Your task to perform on an android device: turn off javascript in the chrome app Image 0: 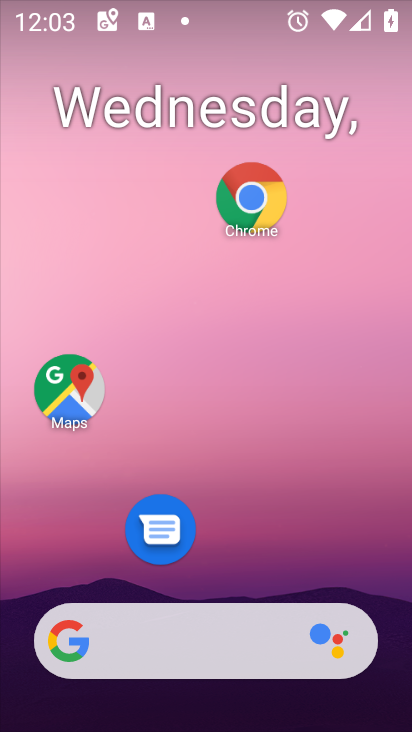
Step 0: drag from (201, 623) to (169, 88)
Your task to perform on an android device: turn off javascript in the chrome app Image 1: 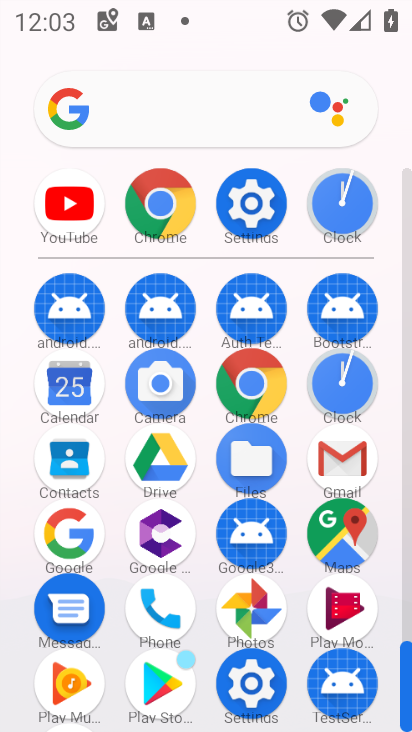
Step 1: click (256, 381)
Your task to perform on an android device: turn off javascript in the chrome app Image 2: 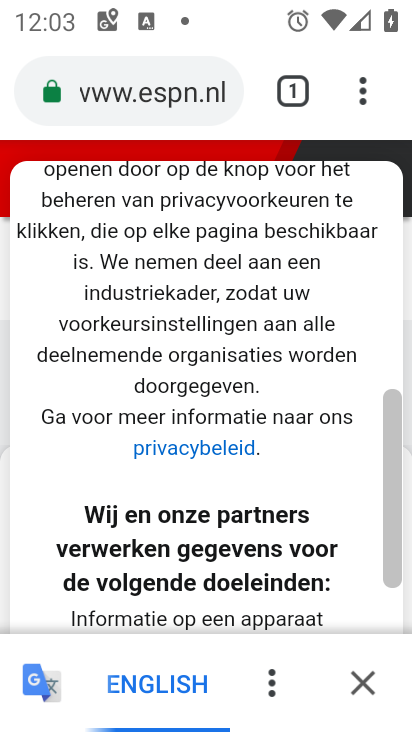
Step 2: click (370, 101)
Your task to perform on an android device: turn off javascript in the chrome app Image 3: 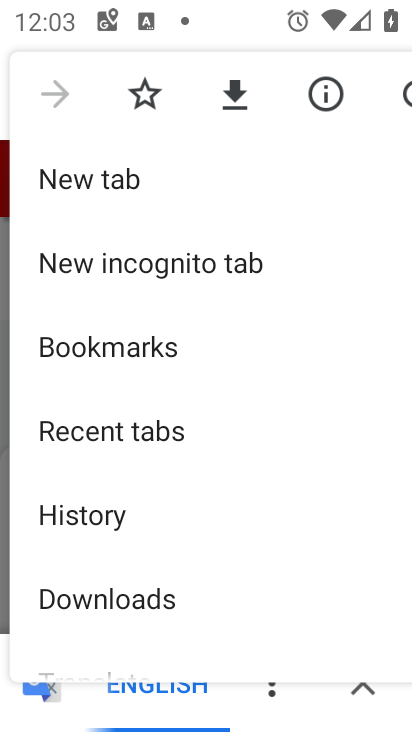
Step 3: drag from (210, 425) to (244, 167)
Your task to perform on an android device: turn off javascript in the chrome app Image 4: 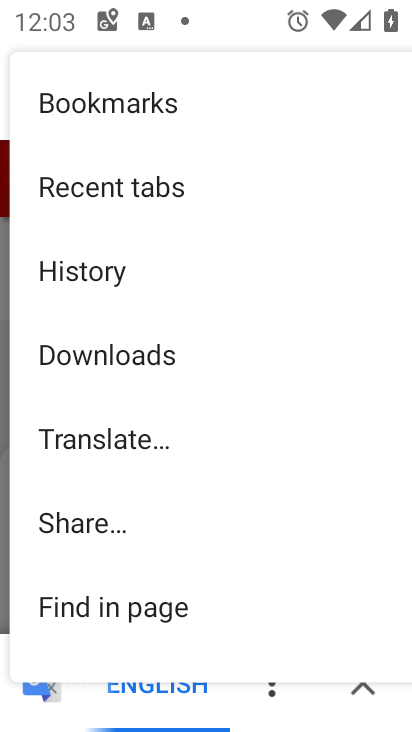
Step 4: drag from (143, 525) to (135, 228)
Your task to perform on an android device: turn off javascript in the chrome app Image 5: 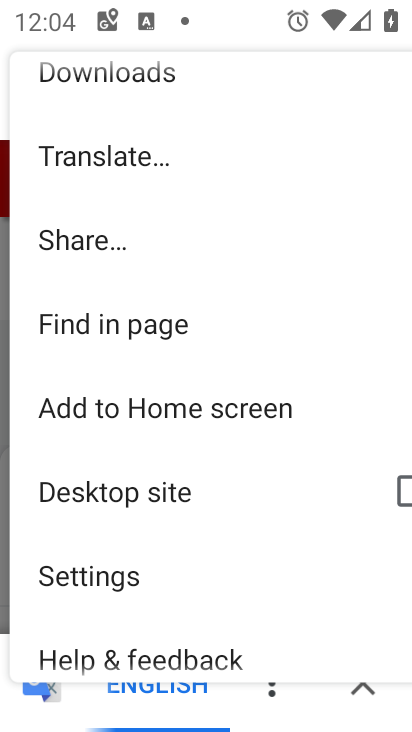
Step 5: click (146, 573)
Your task to perform on an android device: turn off javascript in the chrome app Image 6: 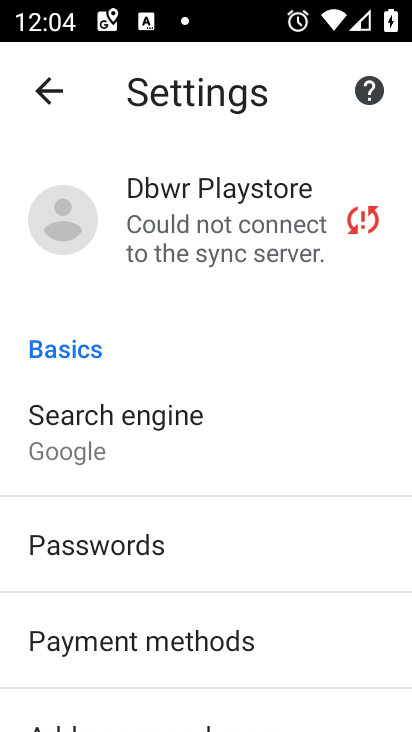
Step 6: drag from (248, 540) to (215, 254)
Your task to perform on an android device: turn off javascript in the chrome app Image 7: 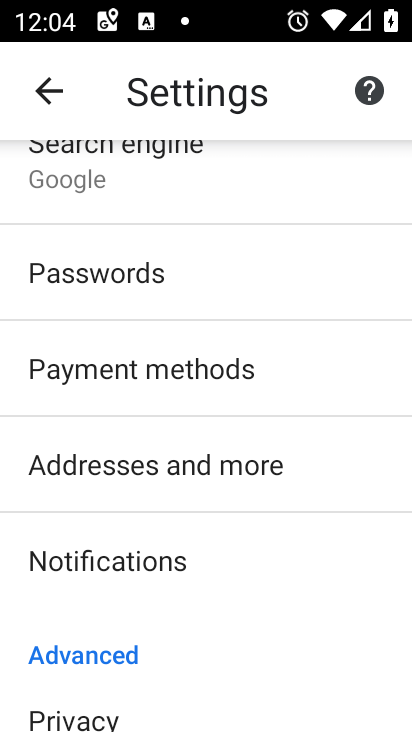
Step 7: drag from (226, 564) to (240, 361)
Your task to perform on an android device: turn off javascript in the chrome app Image 8: 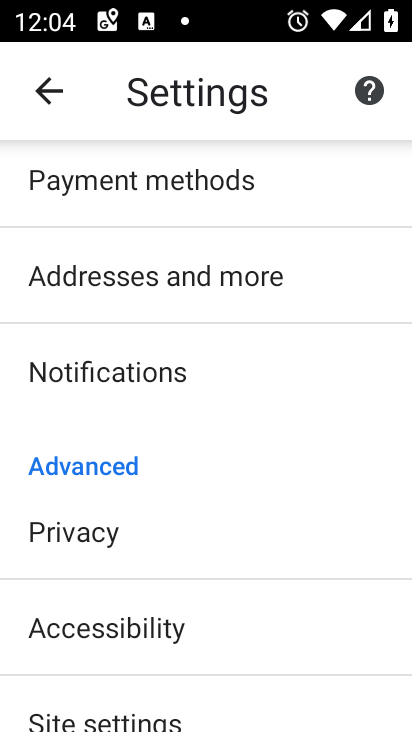
Step 8: drag from (172, 594) to (177, 303)
Your task to perform on an android device: turn off javascript in the chrome app Image 9: 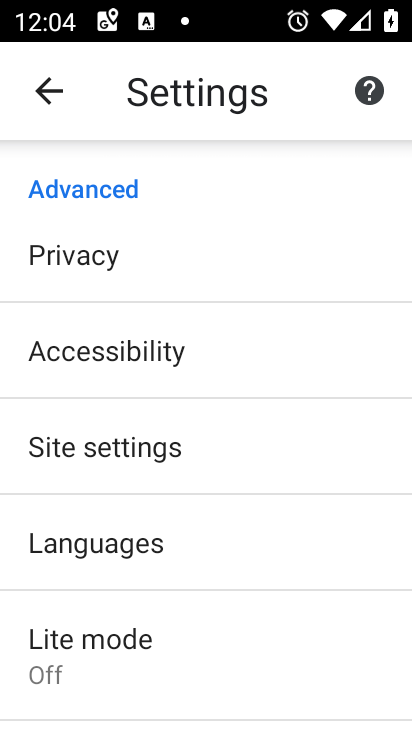
Step 9: click (133, 464)
Your task to perform on an android device: turn off javascript in the chrome app Image 10: 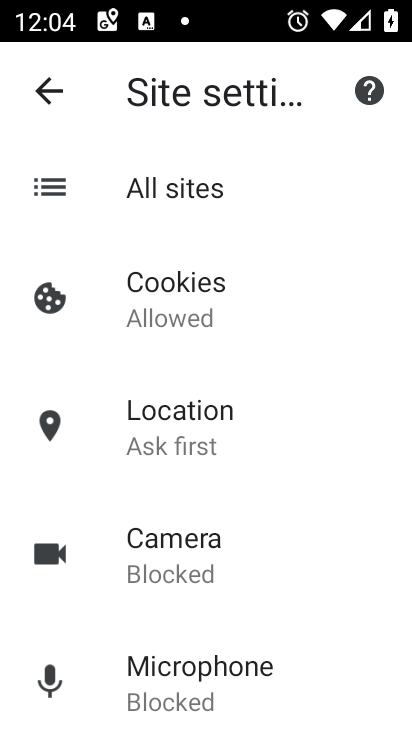
Step 10: drag from (177, 556) to (191, 313)
Your task to perform on an android device: turn off javascript in the chrome app Image 11: 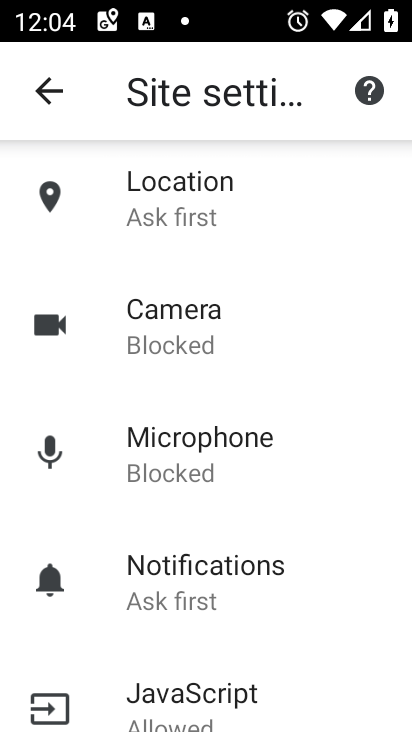
Step 11: drag from (195, 592) to (185, 375)
Your task to perform on an android device: turn off javascript in the chrome app Image 12: 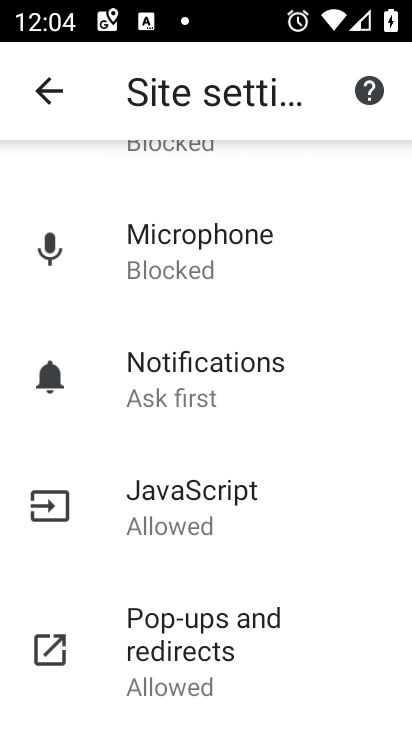
Step 12: click (197, 509)
Your task to perform on an android device: turn off javascript in the chrome app Image 13: 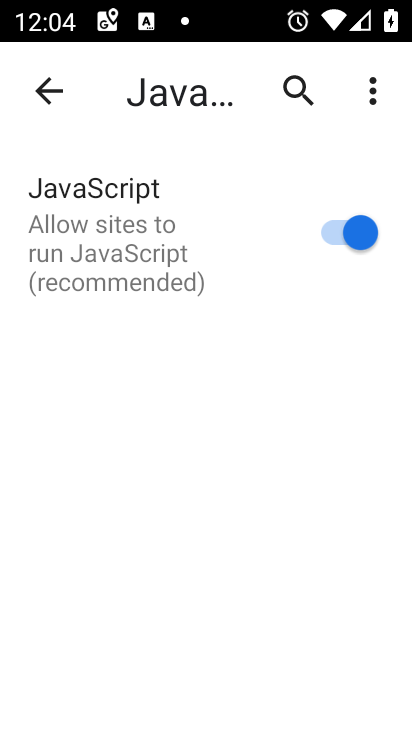
Step 13: click (334, 246)
Your task to perform on an android device: turn off javascript in the chrome app Image 14: 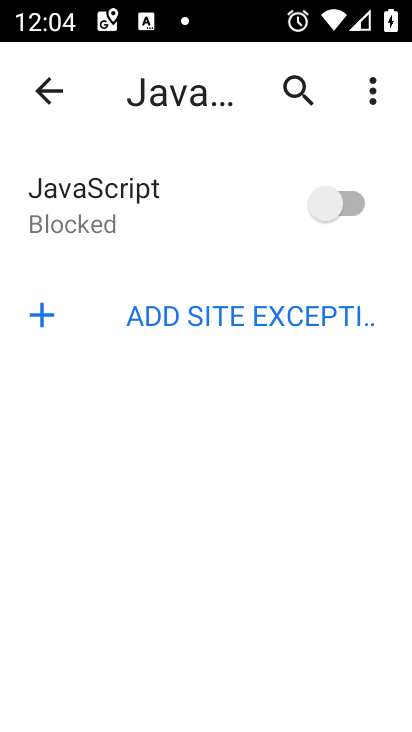
Step 14: task complete